Your task to perform on an android device: Show me productivity apps on the Play Store Image 0: 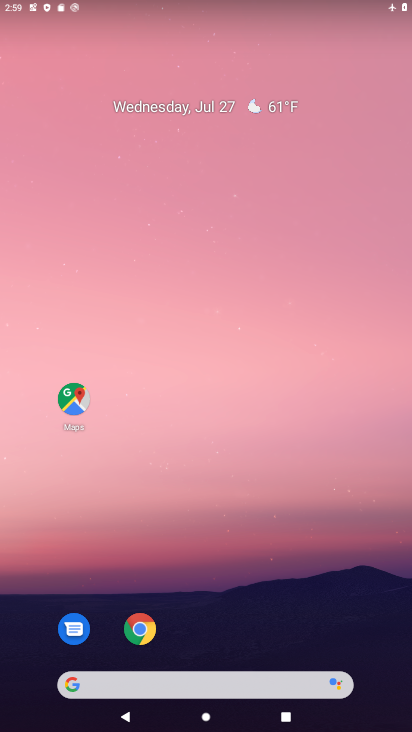
Step 0: drag from (175, 683) to (265, 5)
Your task to perform on an android device: Show me productivity apps on the Play Store Image 1: 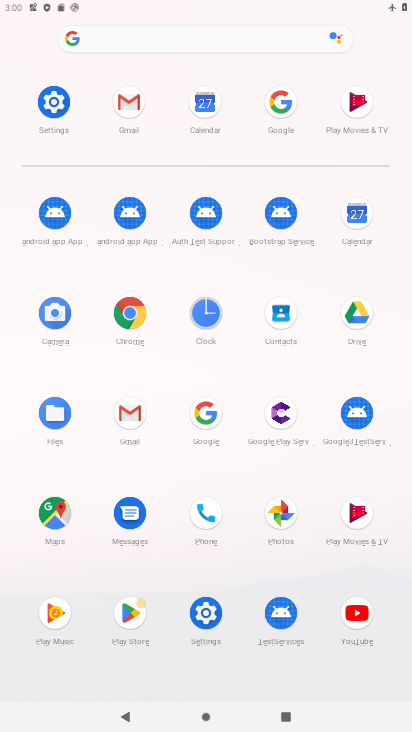
Step 1: click (132, 611)
Your task to perform on an android device: Show me productivity apps on the Play Store Image 2: 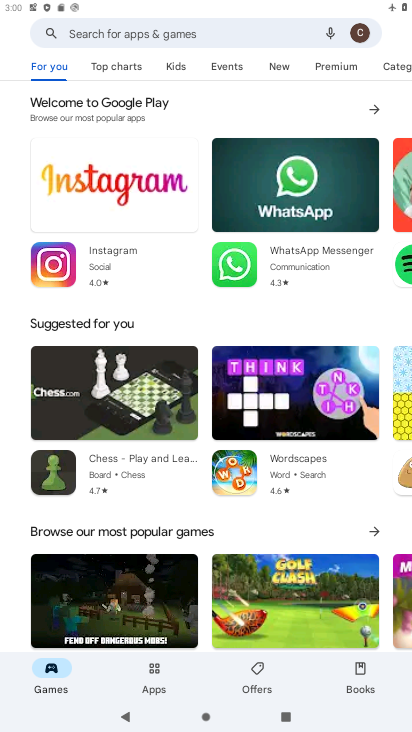
Step 2: click (154, 669)
Your task to perform on an android device: Show me productivity apps on the Play Store Image 3: 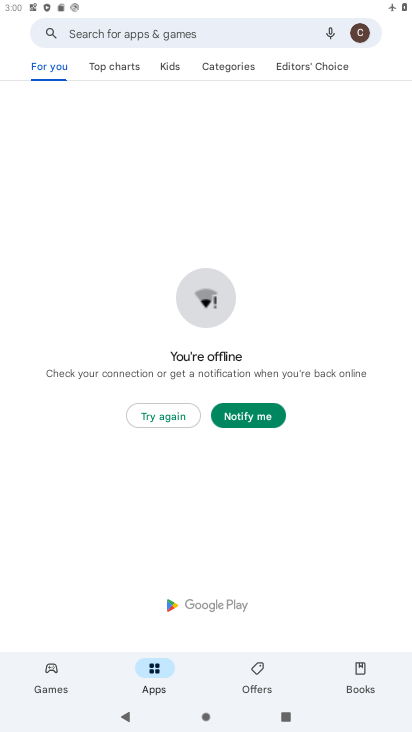
Step 3: click (222, 71)
Your task to perform on an android device: Show me productivity apps on the Play Store Image 4: 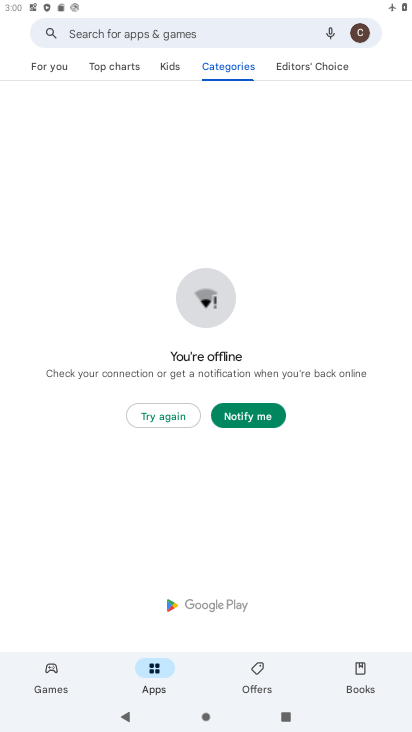
Step 4: click (178, 413)
Your task to perform on an android device: Show me productivity apps on the Play Store Image 5: 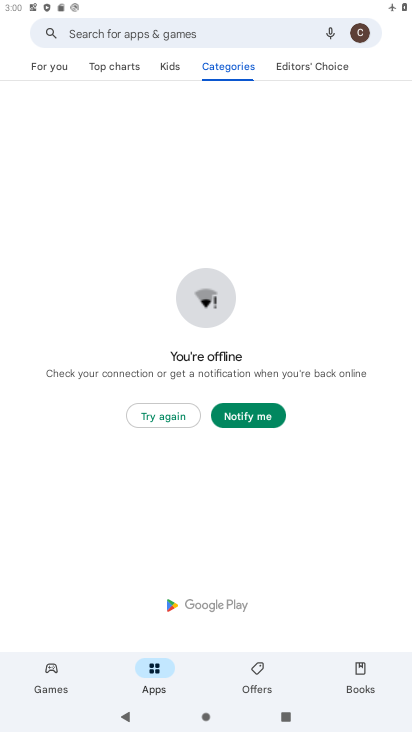
Step 5: click (246, 413)
Your task to perform on an android device: Show me productivity apps on the Play Store Image 6: 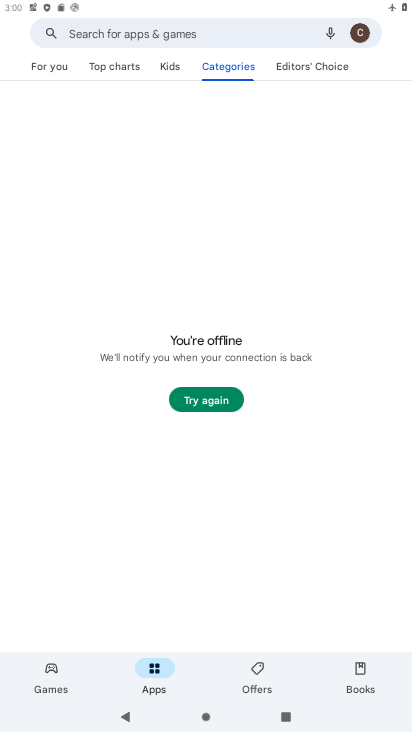
Step 6: click (212, 409)
Your task to perform on an android device: Show me productivity apps on the Play Store Image 7: 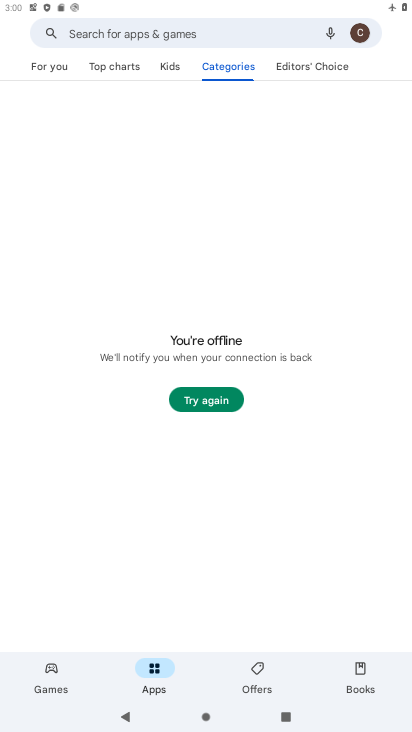
Step 7: task complete